Your task to perform on an android device: Open Chrome and go to the settings page Image 0: 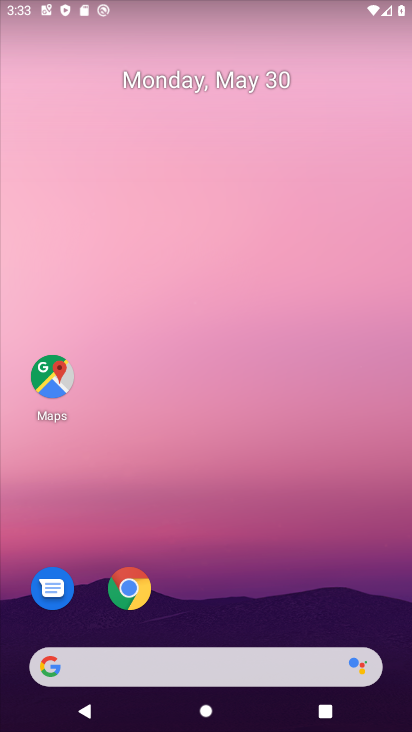
Step 0: drag from (254, 530) to (142, 72)
Your task to perform on an android device: Open Chrome and go to the settings page Image 1: 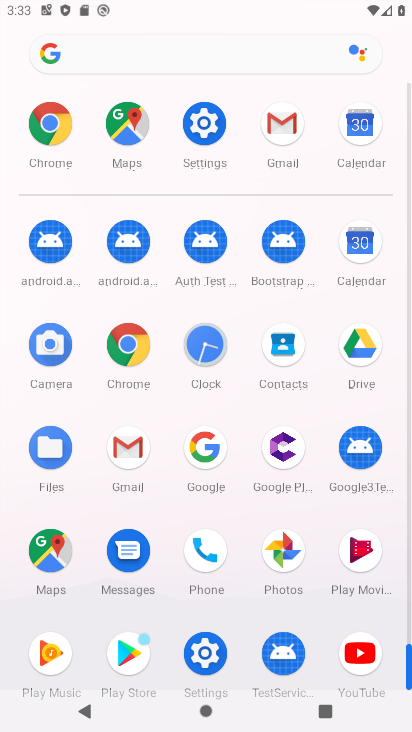
Step 1: click (126, 345)
Your task to perform on an android device: Open Chrome and go to the settings page Image 2: 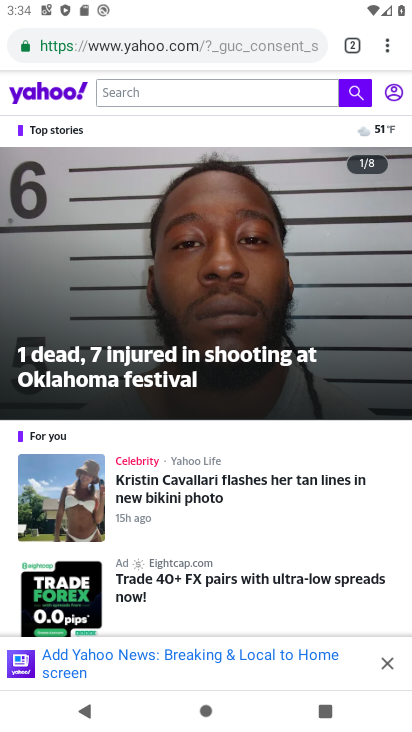
Step 2: task complete